Your task to perform on an android device: Go to display settings Image 0: 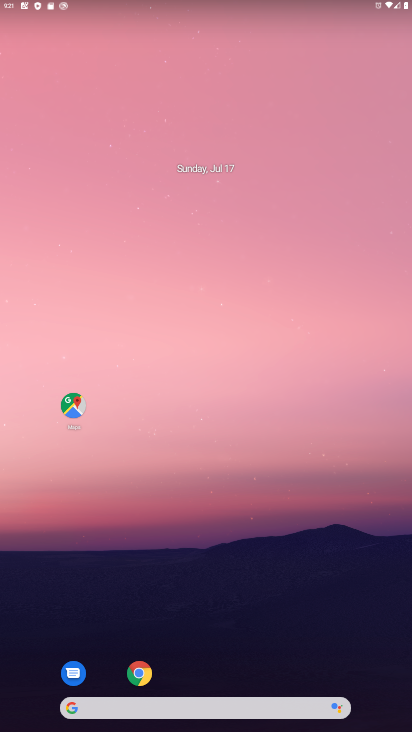
Step 0: drag from (276, 555) to (172, 142)
Your task to perform on an android device: Go to display settings Image 1: 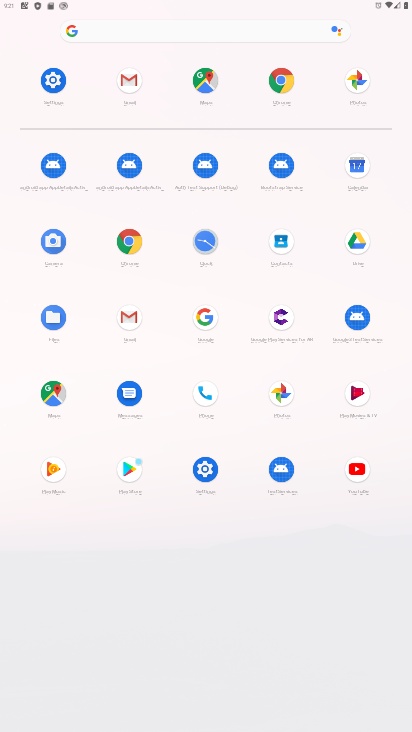
Step 1: click (51, 79)
Your task to perform on an android device: Go to display settings Image 2: 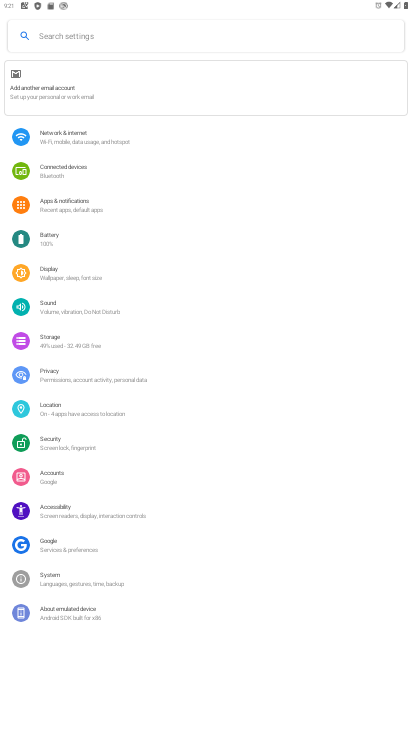
Step 2: click (57, 282)
Your task to perform on an android device: Go to display settings Image 3: 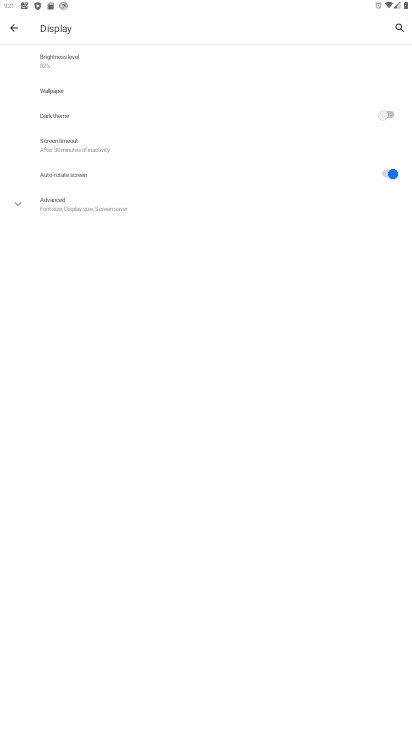
Step 3: task complete